Your task to perform on an android device: Go to accessibility settings Image 0: 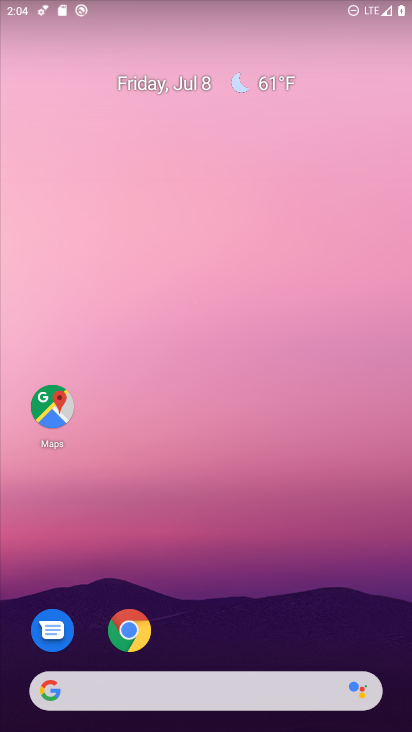
Step 0: drag from (387, 675) to (260, 0)
Your task to perform on an android device: Go to accessibility settings Image 1: 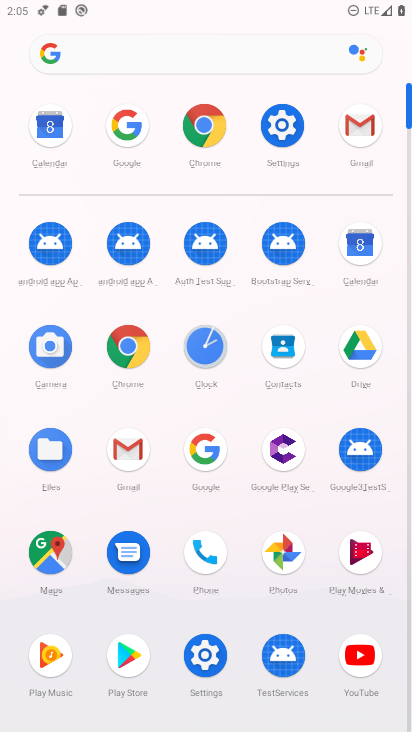
Step 1: click (202, 655)
Your task to perform on an android device: Go to accessibility settings Image 2: 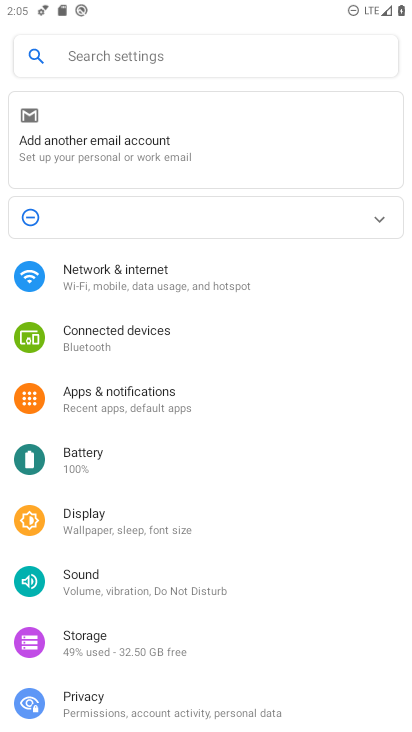
Step 2: drag from (96, 680) to (141, 102)
Your task to perform on an android device: Go to accessibility settings Image 3: 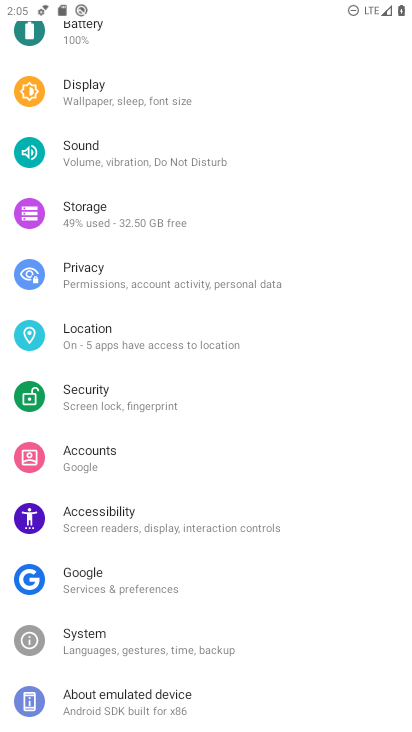
Step 3: click (118, 528)
Your task to perform on an android device: Go to accessibility settings Image 4: 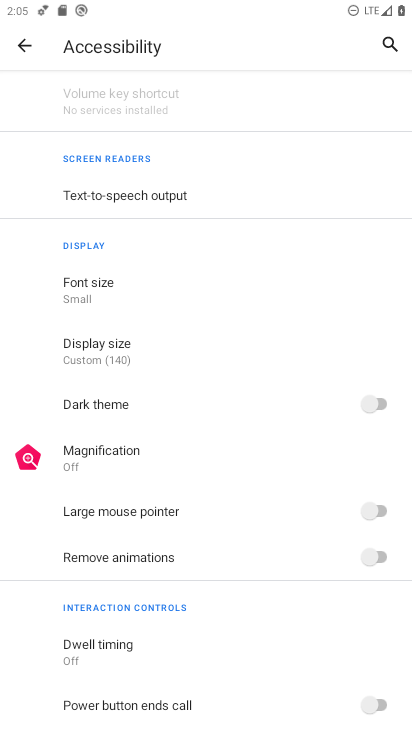
Step 4: task complete